Your task to perform on an android device: open a new tab in the chrome app Image 0: 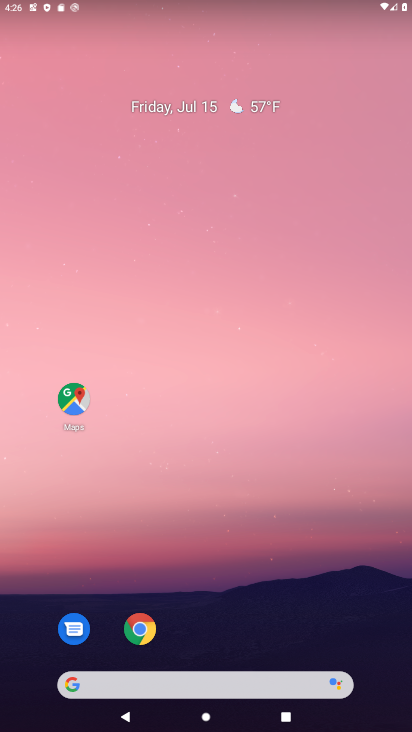
Step 0: press home button
Your task to perform on an android device: open a new tab in the chrome app Image 1: 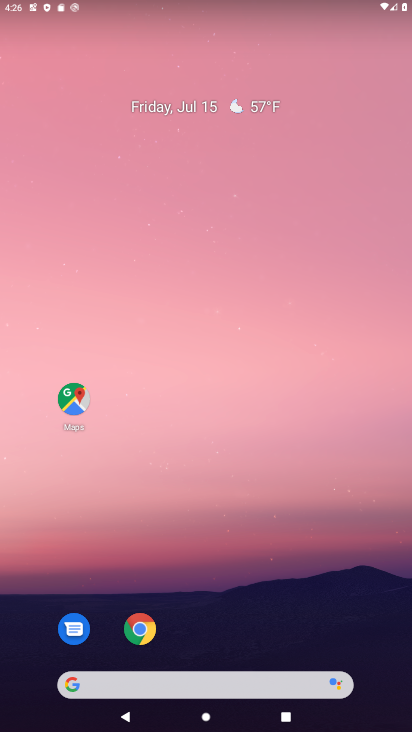
Step 1: drag from (266, 645) to (247, 1)
Your task to perform on an android device: open a new tab in the chrome app Image 2: 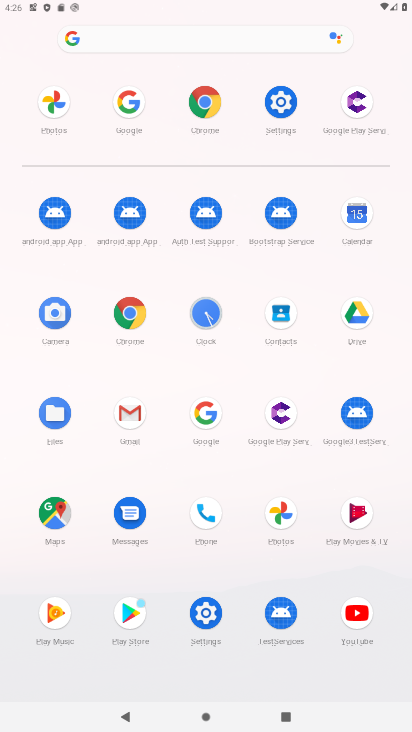
Step 2: click (207, 96)
Your task to perform on an android device: open a new tab in the chrome app Image 3: 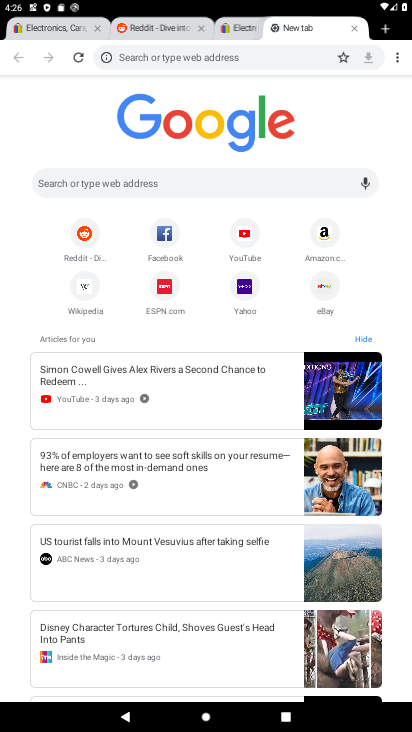
Step 3: click (386, 31)
Your task to perform on an android device: open a new tab in the chrome app Image 4: 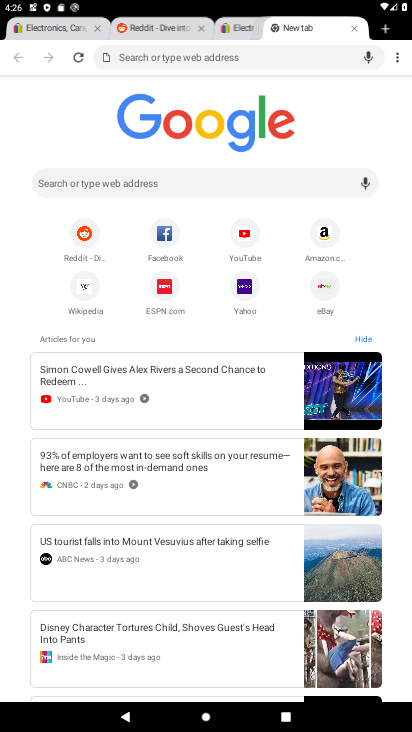
Step 4: task complete